Your task to perform on an android device: delete location history Image 0: 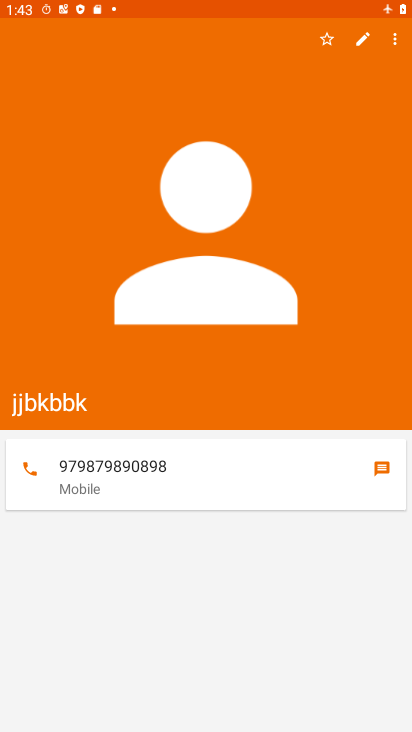
Step 0: press home button
Your task to perform on an android device: delete location history Image 1: 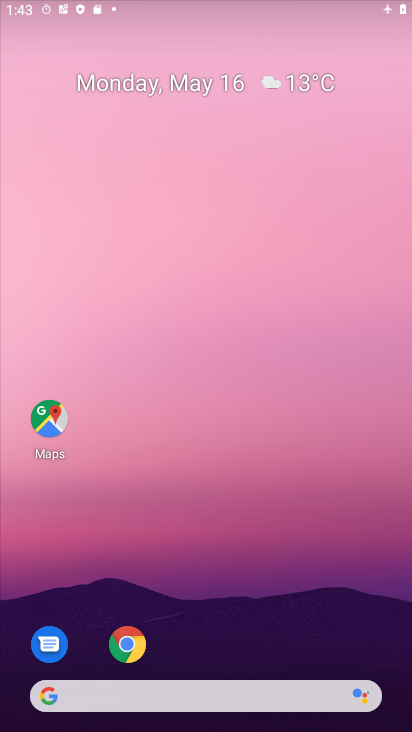
Step 1: drag from (235, 647) to (251, 152)
Your task to perform on an android device: delete location history Image 2: 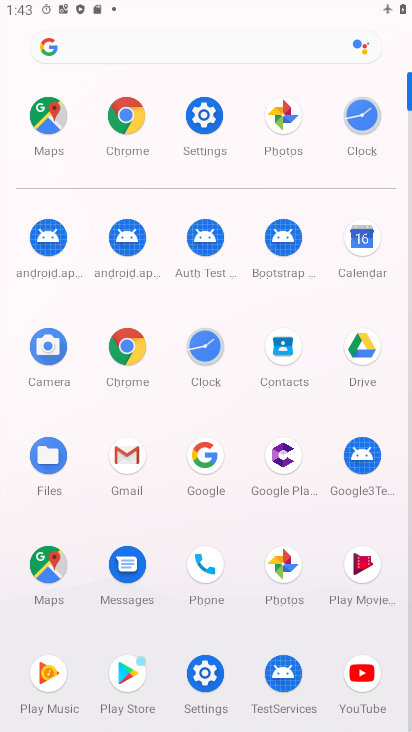
Step 2: click (198, 127)
Your task to perform on an android device: delete location history Image 3: 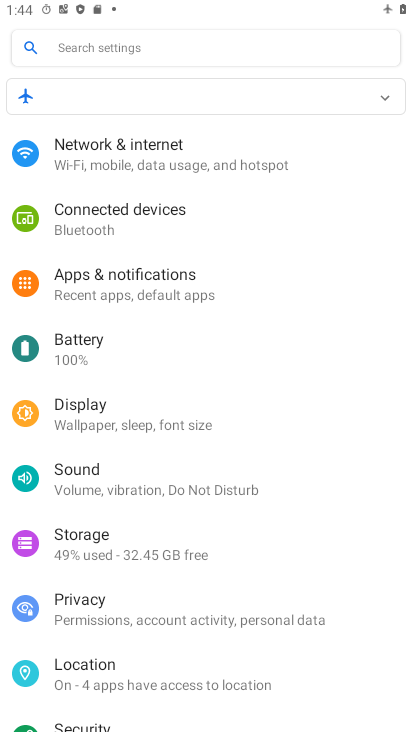
Step 3: drag from (168, 530) to (175, 350)
Your task to perform on an android device: delete location history Image 4: 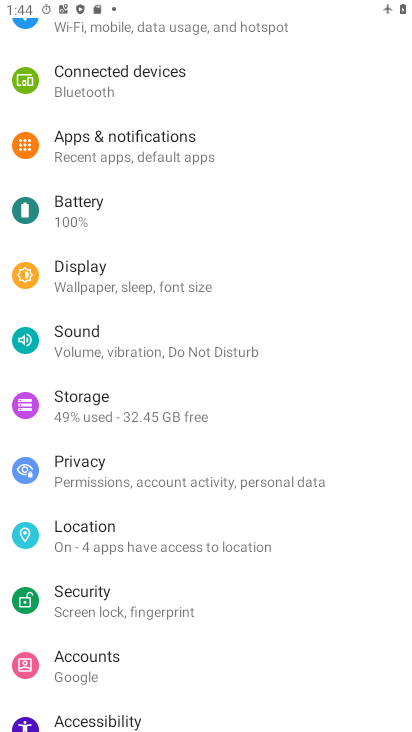
Step 4: click (148, 544)
Your task to perform on an android device: delete location history Image 5: 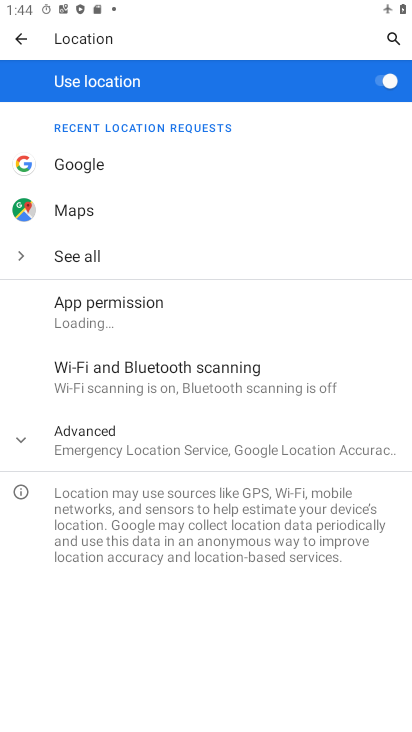
Step 5: click (182, 447)
Your task to perform on an android device: delete location history Image 6: 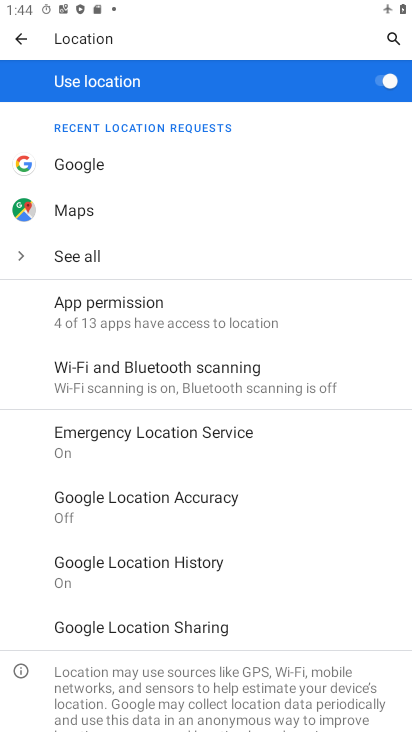
Step 6: click (184, 555)
Your task to perform on an android device: delete location history Image 7: 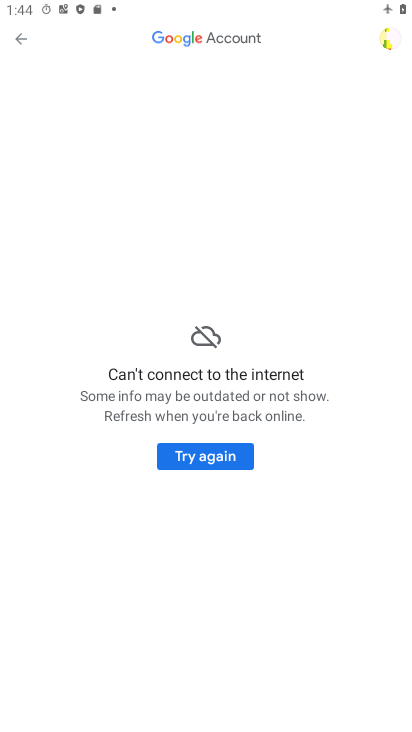
Step 7: click (221, 453)
Your task to perform on an android device: delete location history Image 8: 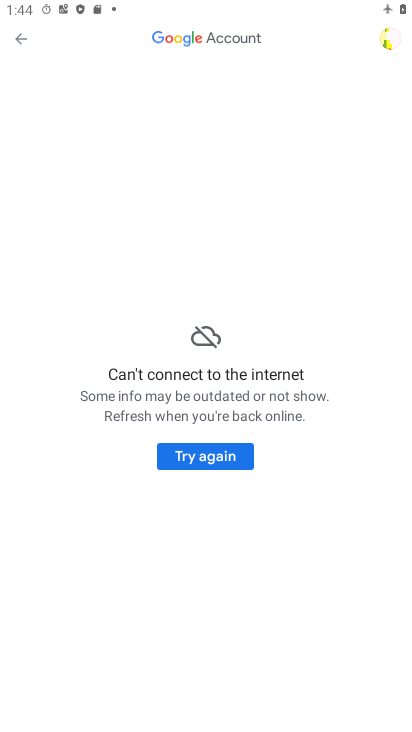
Step 8: click (29, 45)
Your task to perform on an android device: delete location history Image 9: 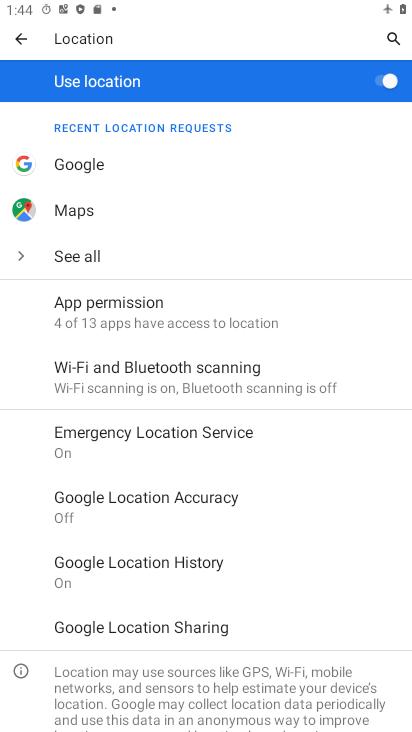
Step 9: task complete